Your task to perform on an android device: Go to Wikipedia Image 0: 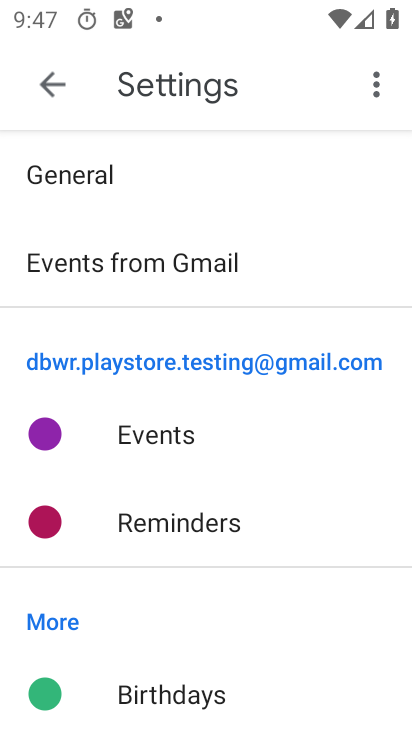
Step 0: press home button
Your task to perform on an android device: Go to Wikipedia Image 1: 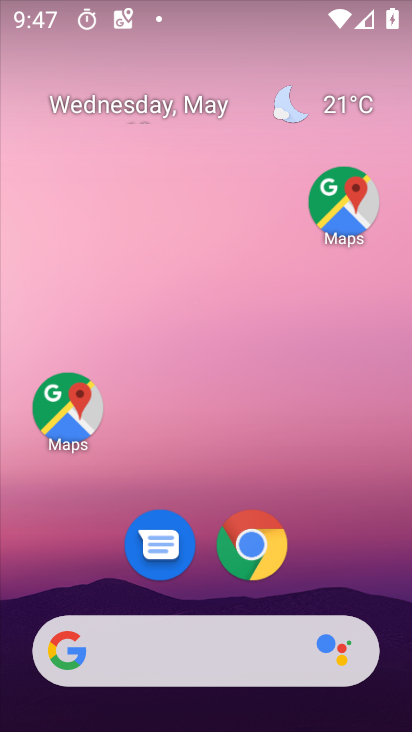
Step 1: click (259, 552)
Your task to perform on an android device: Go to Wikipedia Image 2: 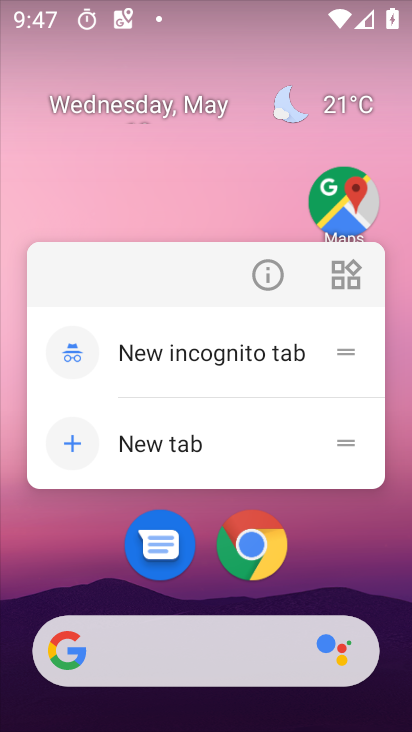
Step 2: click (258, 550)
Your task to perform on an android device: Go to Wikipedia Image 3: 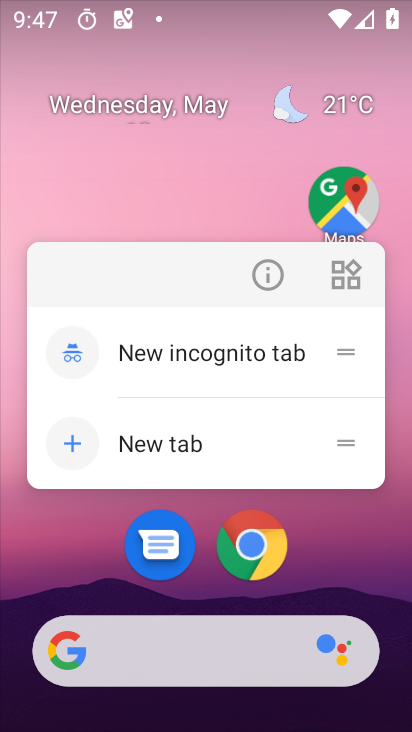
Step 3: click (256, 543)
Your task to perform on an android device: Go to Wikipedia Image 4: 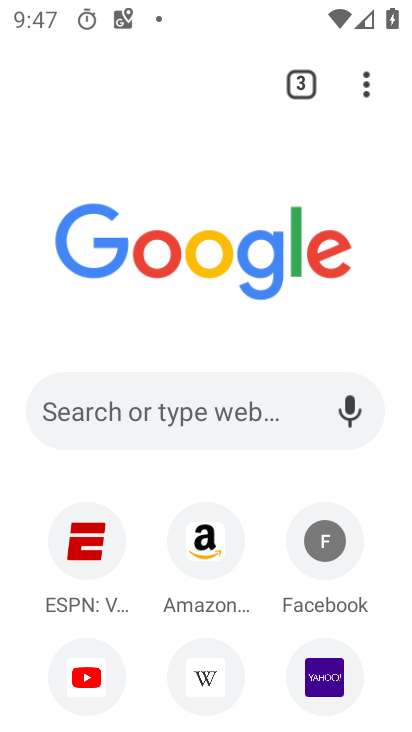
Step 4: click (193, 668)
Your task to perform on an android device: Go to Wikipedia Image 5: 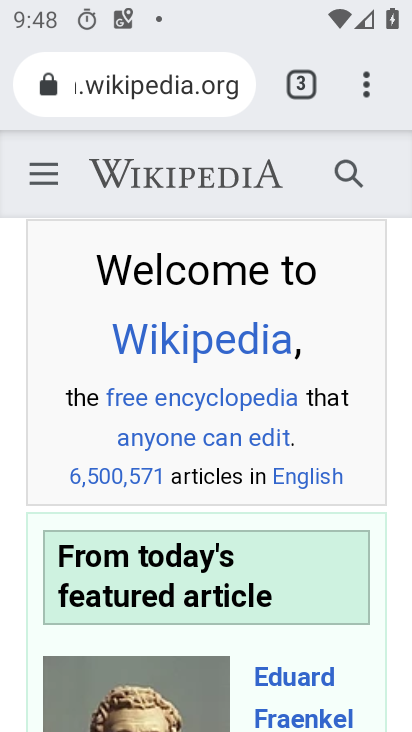
Step 5: task complete